Your task to perform on an android device: delete the emails in spam in the gmail app Image 0: 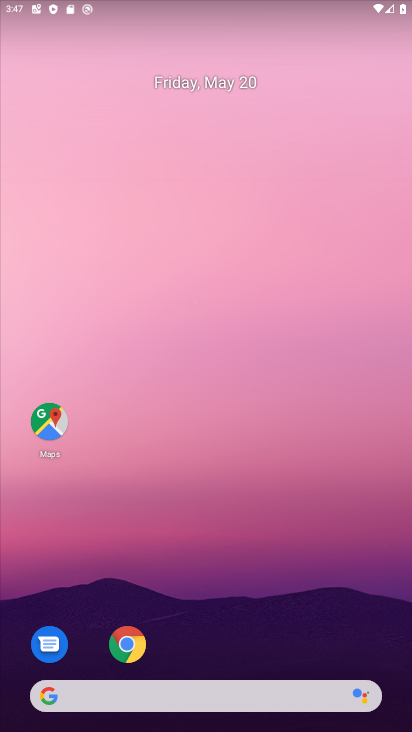
Step 0: click (249, 591)
Your task to perform on an android device: delete the emails in spam in the gmail app Image 1: 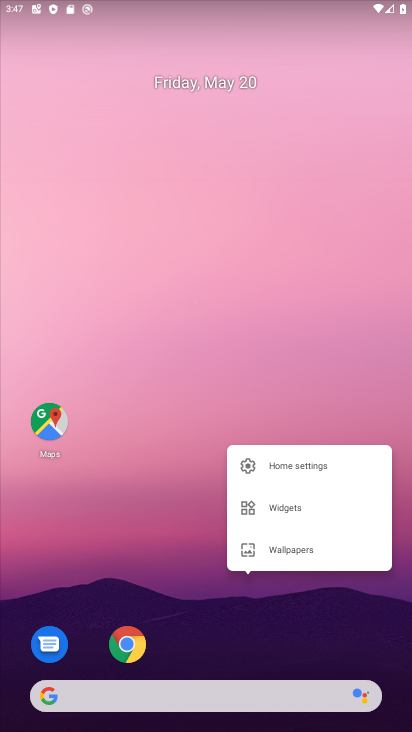
Step 1: click (135, 643)
Your task to perform on an android device: delete the emails in spam in the gmail app Image 2: 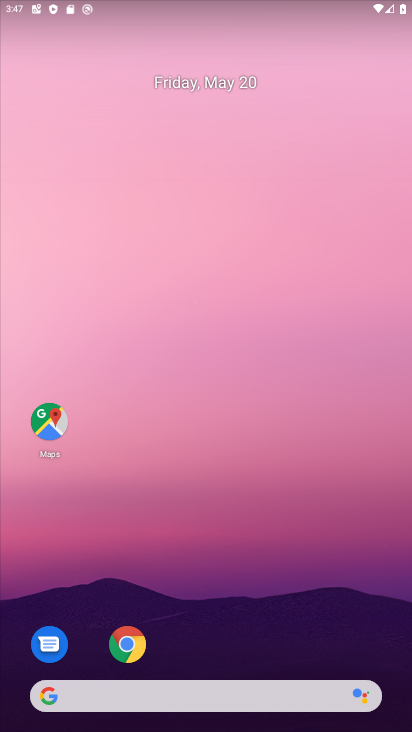
Step 2: drag from (202, 654) to (349, 328)
Your task to perform on an android device: delete the emails in spam in the gmail app Image 3: 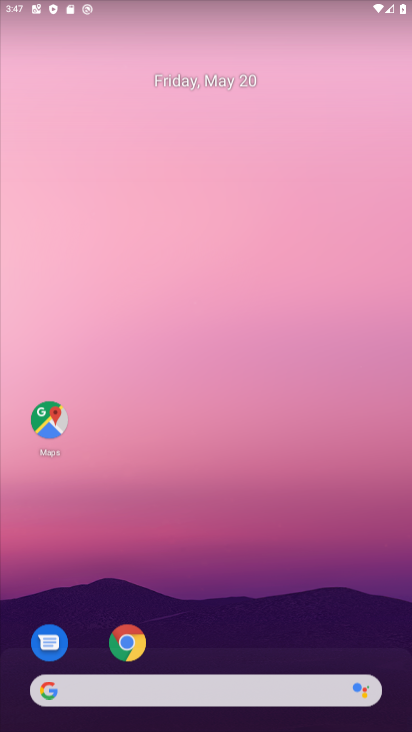
Step 3: drag from (277, 640) to (324, 187)
Your task to perform on an android device: delete the emails in spam in the gmail app Image 4: 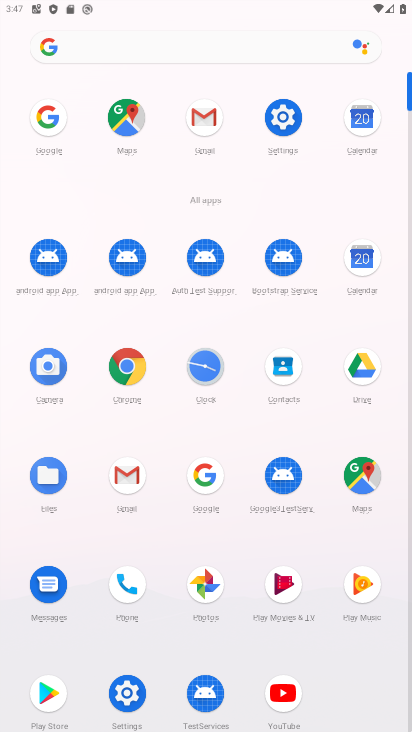
Step 4: click (210, 124)
Your task to perform on an android device: delete the emails in spam in the gmail app Image 5: 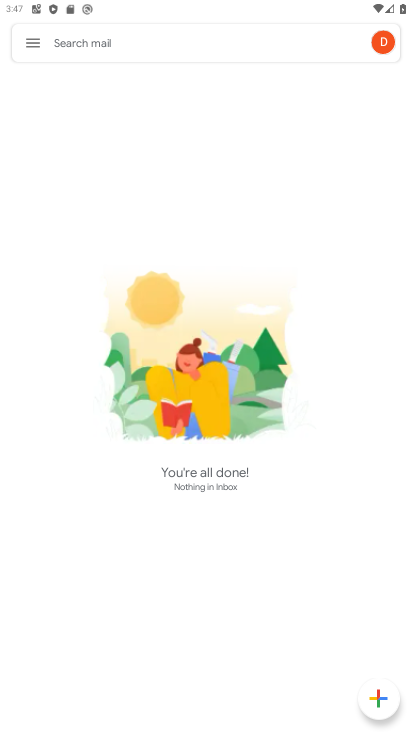
Step 5: click (36, 44)
Your task to perform on an android device: delete the emails in spam in the gmail app Image 6: 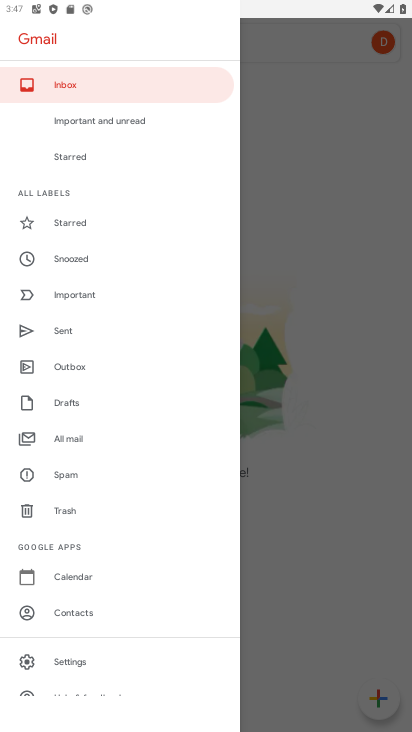
Step 6: click (82, 467)
Your task to perform on an android device: delete the emails in spam in the gmail app Image 7: 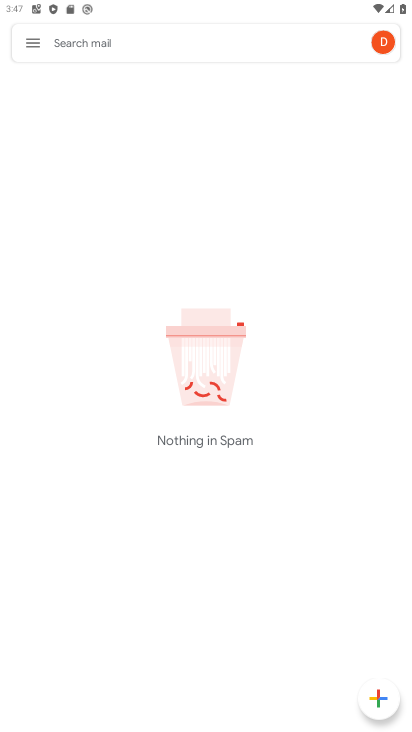
Step 7: task complete